Your task to perform on an android device: toggle translation in the chrome app Image 0: 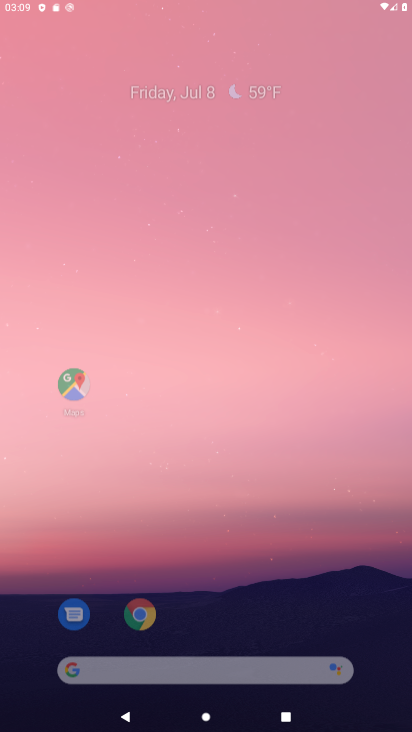
Step 0: press home button
Your task to perform on an android device: toggle translation in the chrome app Image 1: 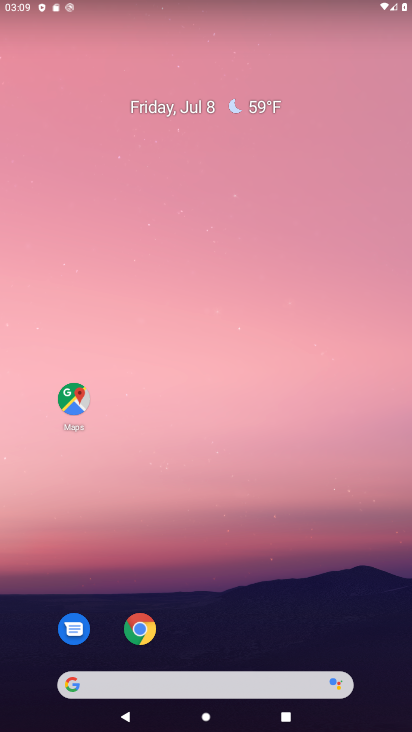
Step 1: click (136, 626)
Your task to perform on an android device: toggle translation in the chrome app Image 2: 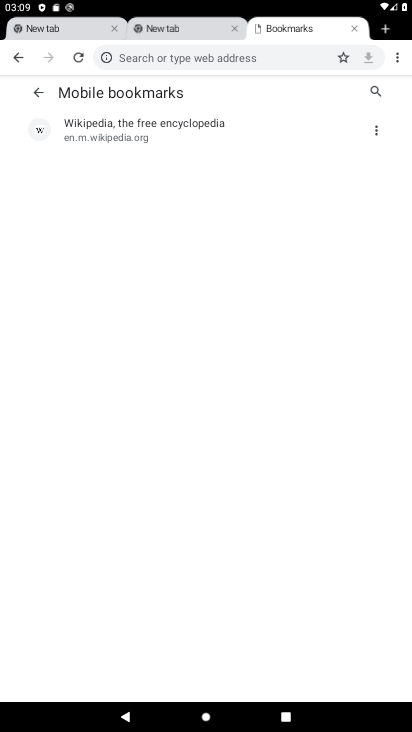
Step 2: click (354, 25)
Your task to perform on an android device: toggle translation in the chrome app Image 3: 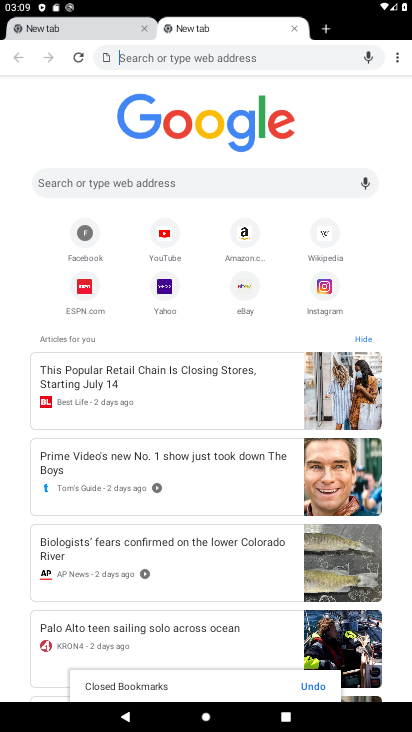
Step 3: click (297, 23)
Your task to perform on an android device: toggle translation in the chrome app Image 4: 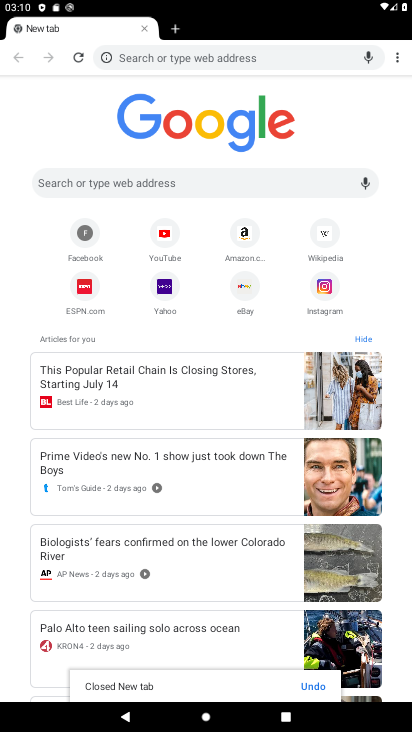
Step 4: click (170, 25)
Your task to perform on an android device: toggle translation in the chrome app Image 5: 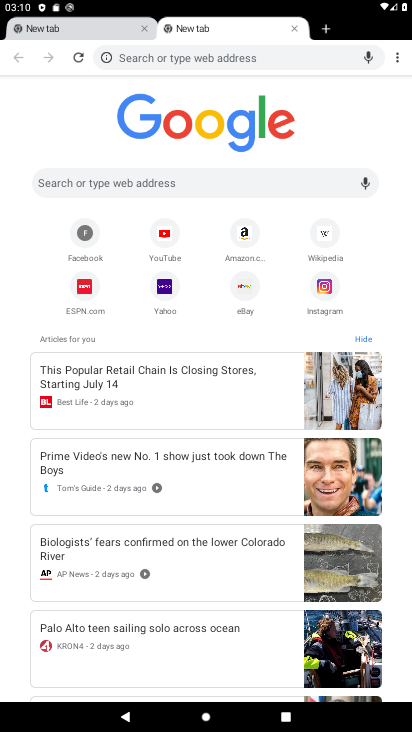
Step 5: click (143, 27)
Your task to perform on an android device: toggle translation in the chrome app Image 6: 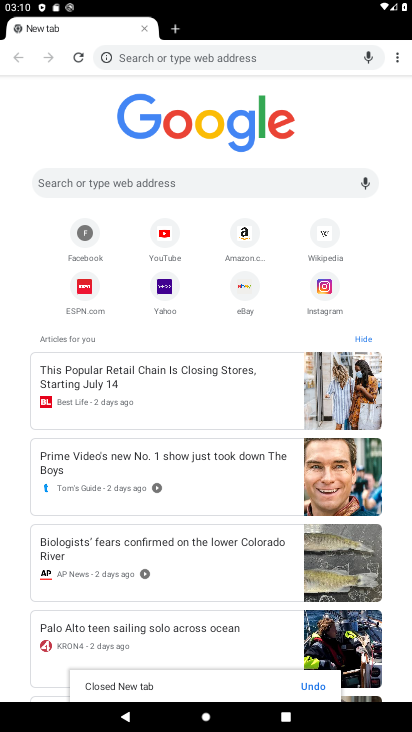
Step 6: click (399, 58)
Your task to perform on an android device: toggle translation in the chrome app Image 7: 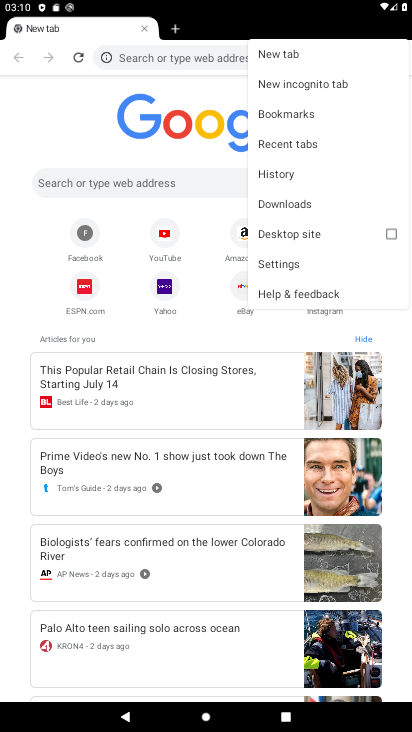
Step 7: click (285, 263)
Your task to perform on an android device: toggle translation in the chrome app Image 8: 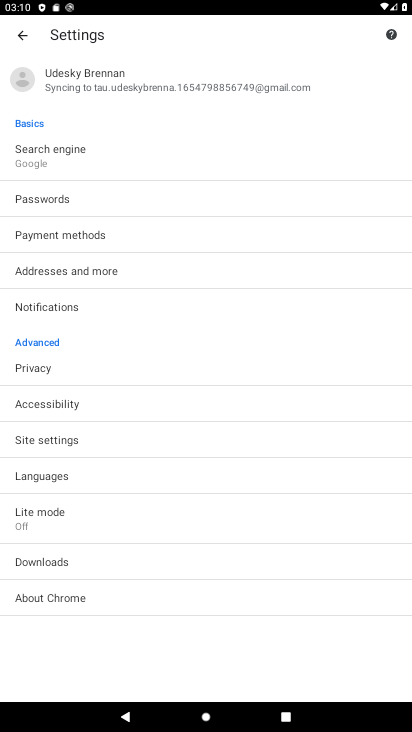
Step 8: click (83, 484)
Your task to perform on an android device: toggle translation in the chrome app Image 9: 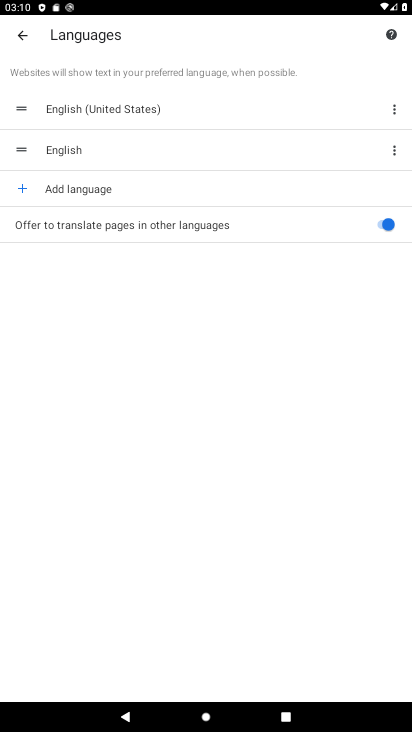
Step 9: click (377, 222)
Your task to perform on an android device: toggle translation in the chrome app Image 10: 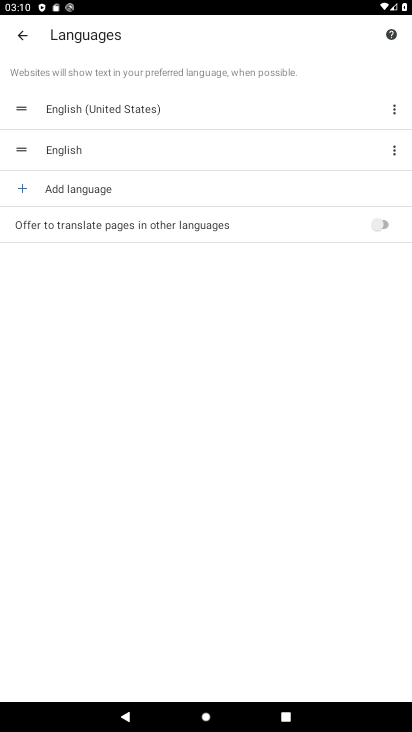
Step 10: task complete